Your task to perform on an android device: Open accessibility settings Image 0: 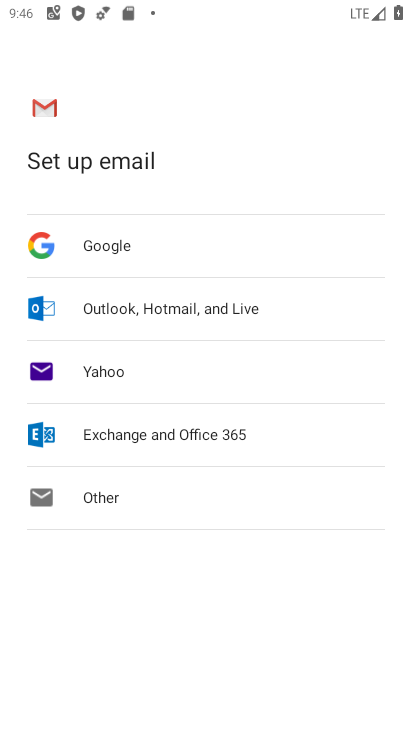
Step 0: press home button
Your task to perform on an android device: Open accessibility settings Image 1: 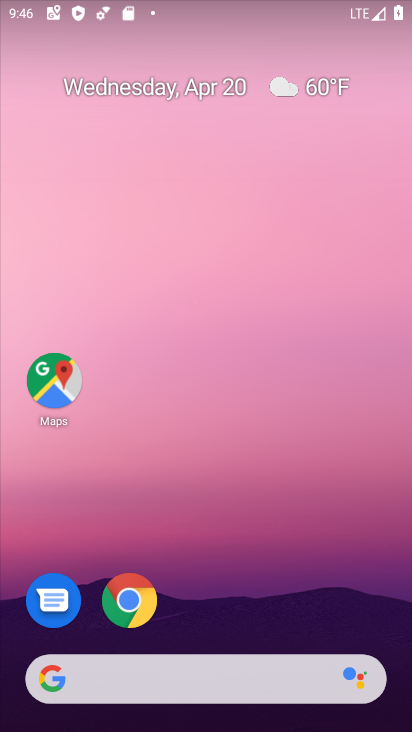
Step 1: drag from (212, 636) to (212, 192)
Your task to perform on an android device: Open accessibility settings Image 2: 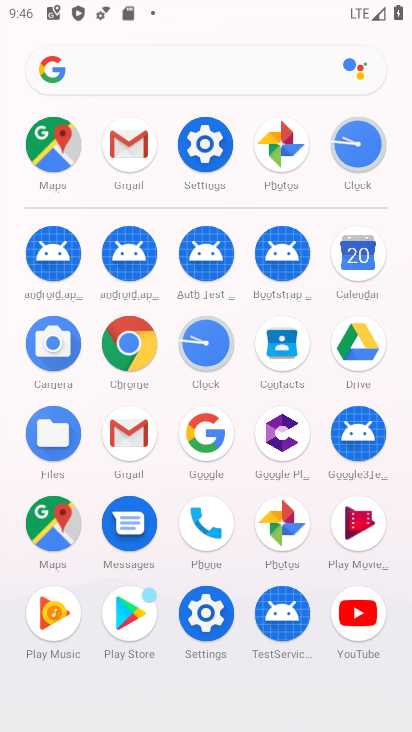
Step 2: click (207, 147)
Your task to perform on an android device: Open accessibility settings Image 3: 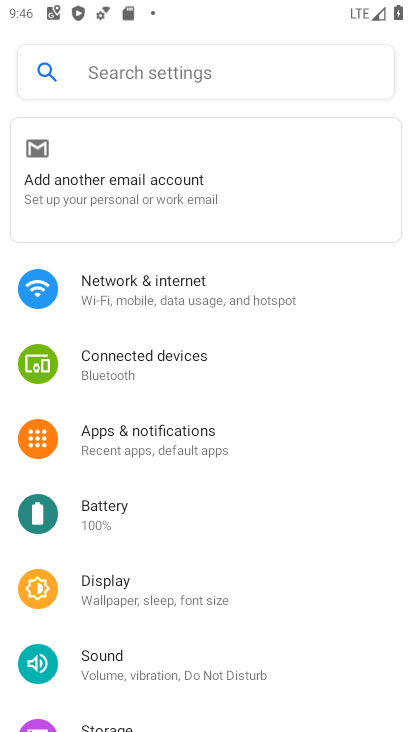
Step 3: drag from (138, 575) to (169, 89)
Your task to perform on an android device: Open accessibility settings Image 4: 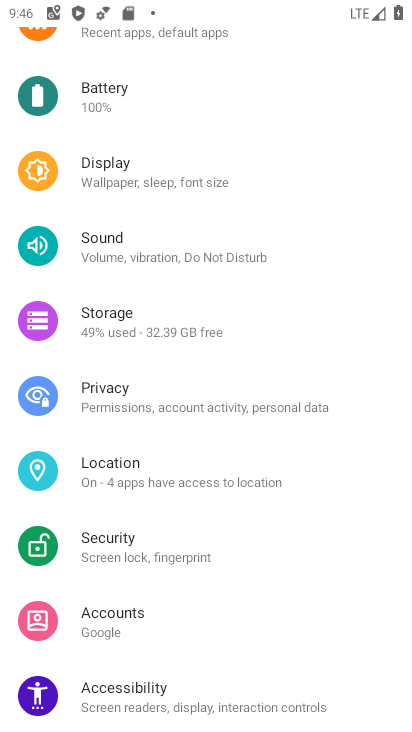
Step 4: click (105, 686)
Your task to perform on an android device: Open accessibility settings Image 5: 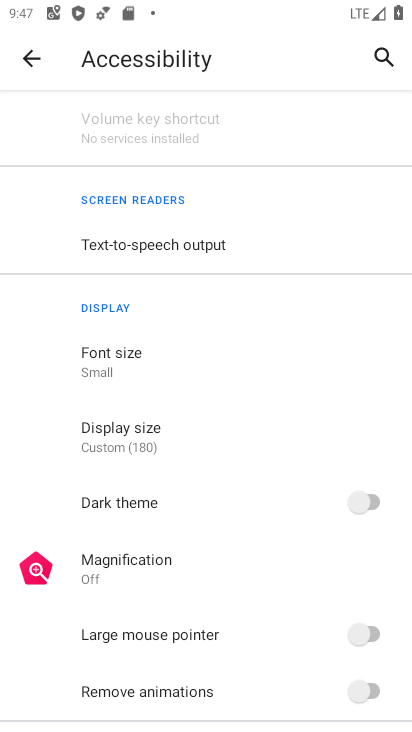
Step 5: task complete